Your task to perform on an android device: allow cookies in the chrome app Image 0: 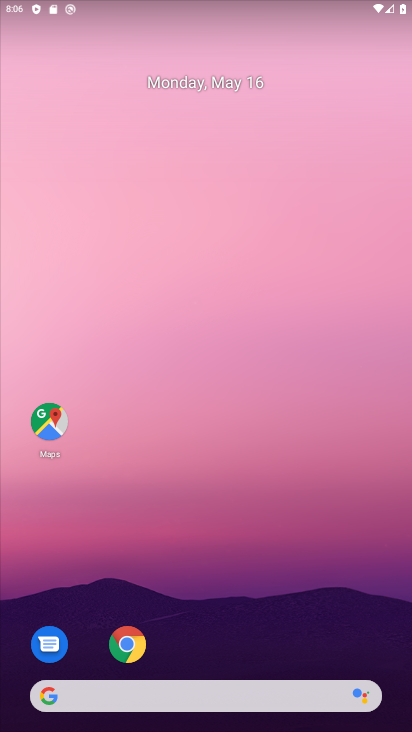
Step 0: drag from (204, 660) to (307, 152)
Your task to perform on an android device: allow cookies in the chrome app Image 1: 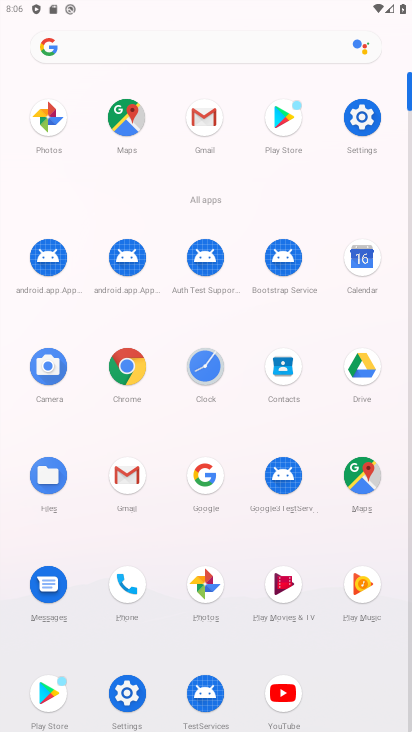
Step 1: click (130, 357)
Your task to perform on an android device: allow cookies in the chrome app Image 2: 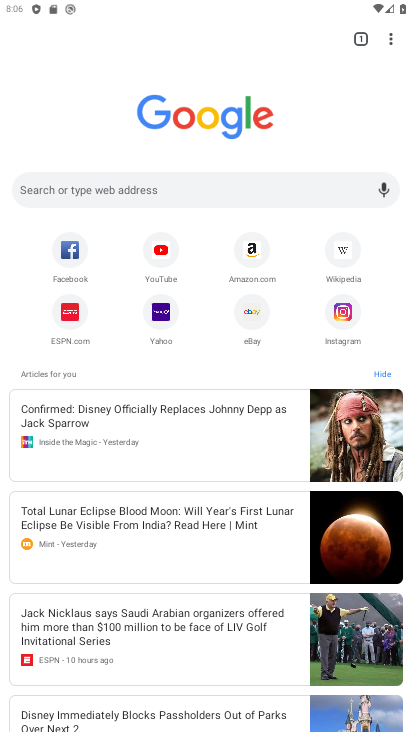
Step 2: click (387, 34)
Your task to perform on an android device: allow cookies in the chrome app Image 3: 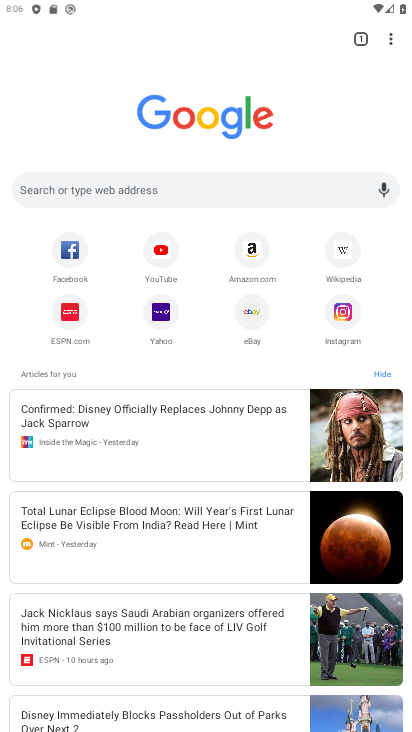
Step 3: drag from (384, 30) to (261, 323)
Your task to perform on an android device: allow cookies in the chrome app Image 4: 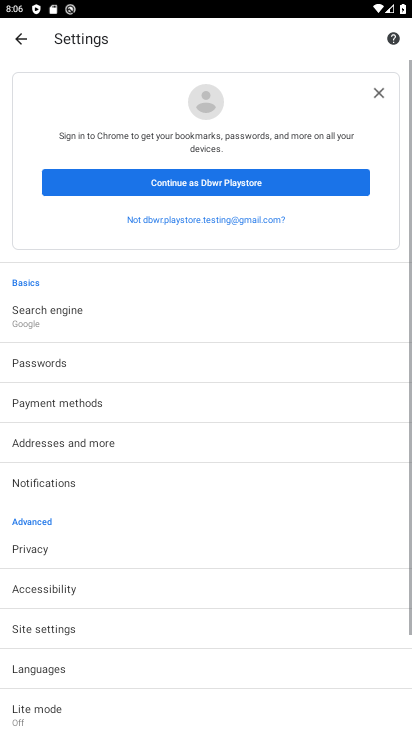
Step 4: drag from (244, 492) to (195, 235)
Your task to perform on an android device: allow cookies in the chrome app Image 5: 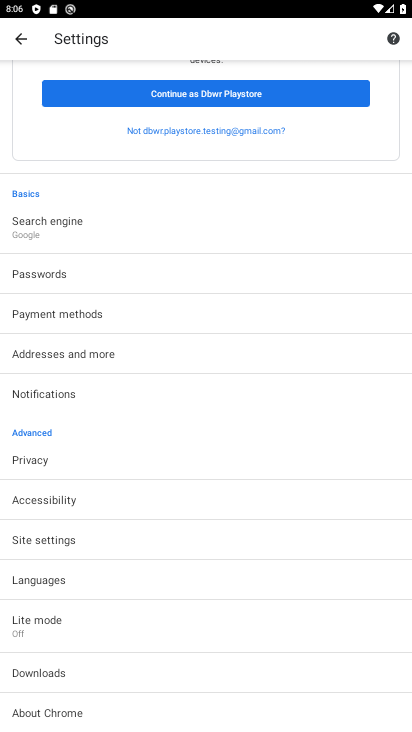
Step 5: click (83, 529)
Your task to perform on an android device: allow cookies in the chrome app Image 6: 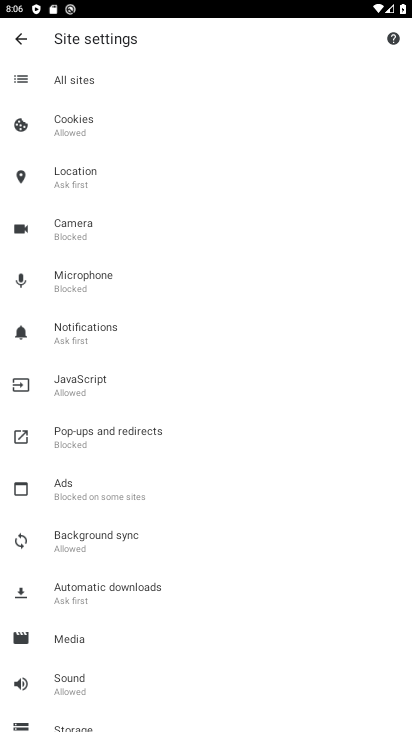
Step 6: click (75, 117)
Your task to perform on an android device: allow cookies in the chrome app Image 7: 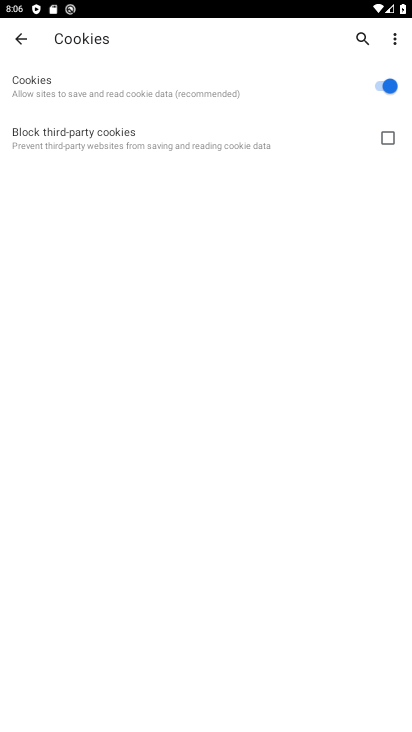
Step 7: press back button
Your task to perform on an android device: allow cookies in the chrome app Image 8: 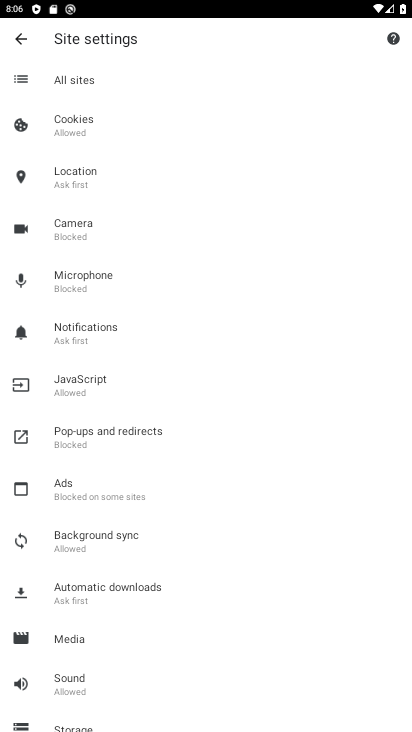
Step 8: press back button
Your task to perform on an android device: allow cookies in the chrome app Image 9: 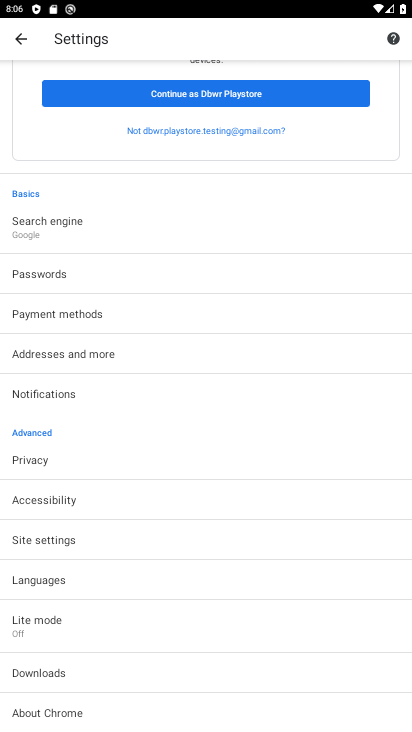
Step 9: click (62, 463)
Your task to perform on an android device: allow cookies in the chrome app Image 10: 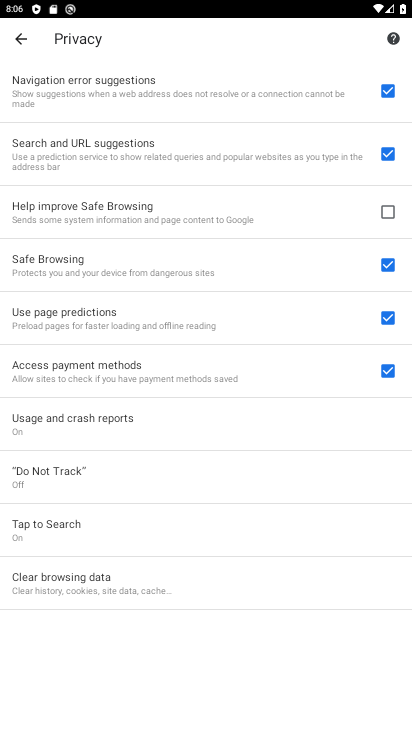
Step 10: drag from (192, 592) to (186, 535)
Your task to perform on an android device: allow cookies in the chrome app Image 11: 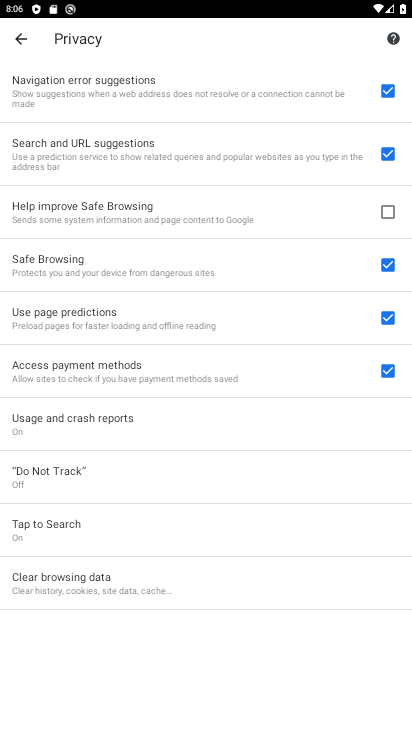
Step 11: click (157, 574)
Your task to perform on an android device: allow cookies in the chrome app Image 12: 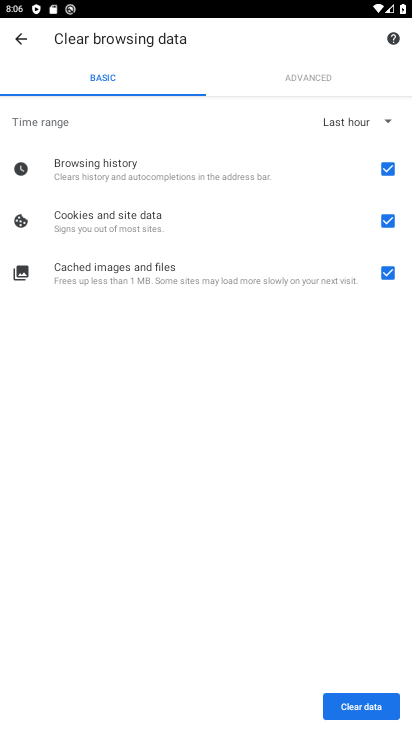
Step 12: click (365, 706)
Your task to perform on an android device: allow cookies in the chrome app Image 13: 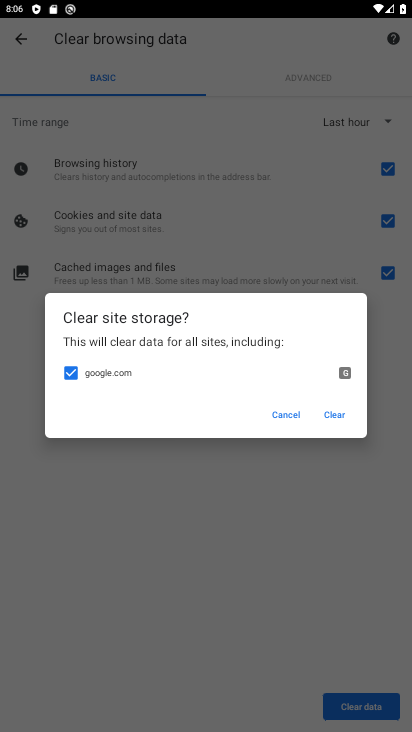
Step 13: click (340, 414)
Your task to perform on an android device: allow cookies in the chrome app Image 14: 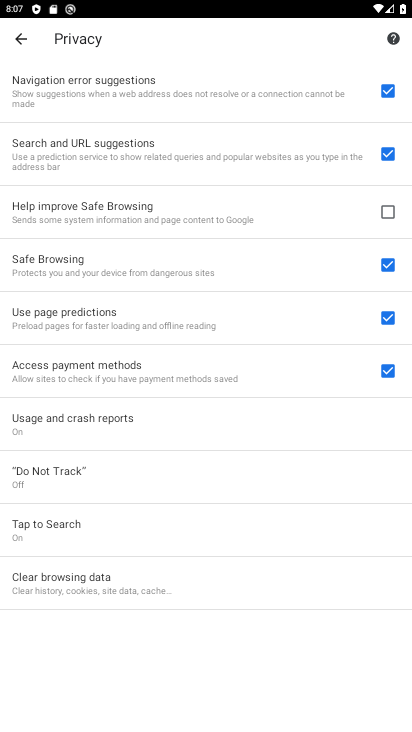
Step 14: task complete